Your task to perform on an android device: toggle airplane mode Image 0: 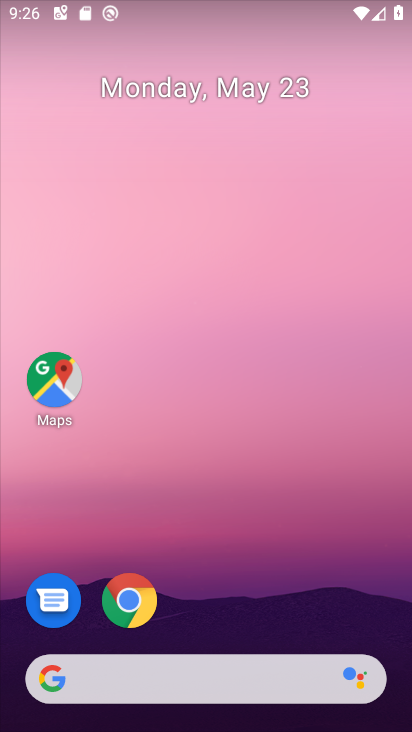
Step 0: drag from (174, 726) to (143, 102)
Your task to perform on an android device: toggle airplane mode Image 1: 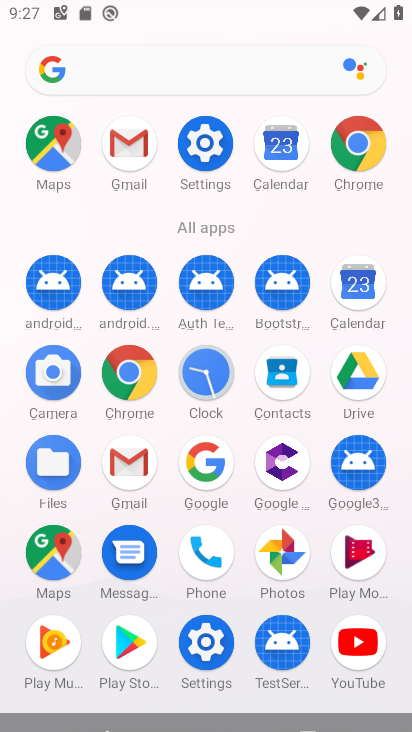
Step 1: click (196, 147)
Your task to perform on an android device: toggle airplane mode Image 2: 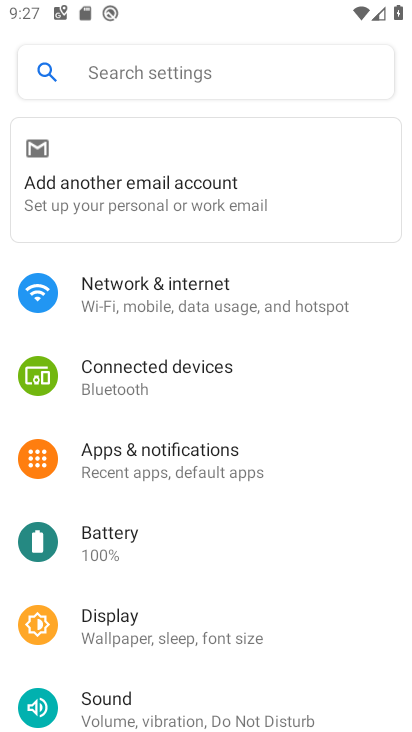
Step 2: click (127, 295)
Your task to perform on an android device: toggle airplane mode Image 3: 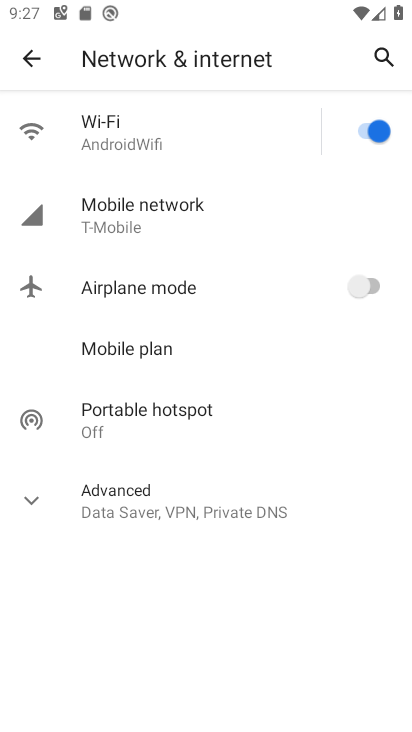
Step 3: click (372, 289)
Your task to perform on an android device: toggle airplane mode Image 4: 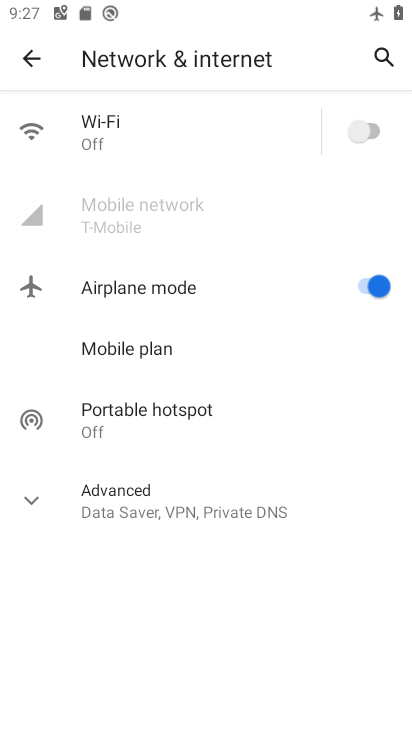
Step 4: task complete